Your task to perform on an android device: Open network settings Image 0: 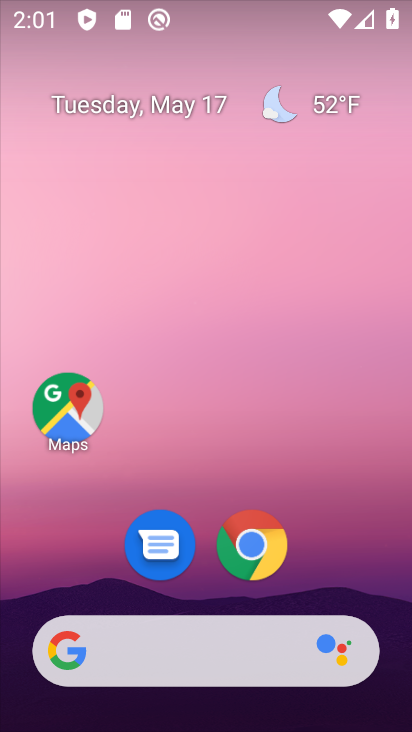
Step 0: drag from (341, 576) to (332, 156)
Your task to perform on an android device: Open network settings Image 1: 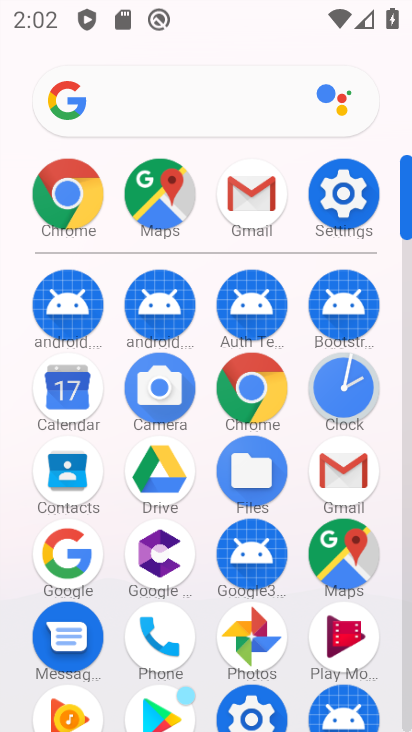
Step 1: drag from (281, 570) to (299, 405)
Your task to perform on an android device: Open network settings Image 2: 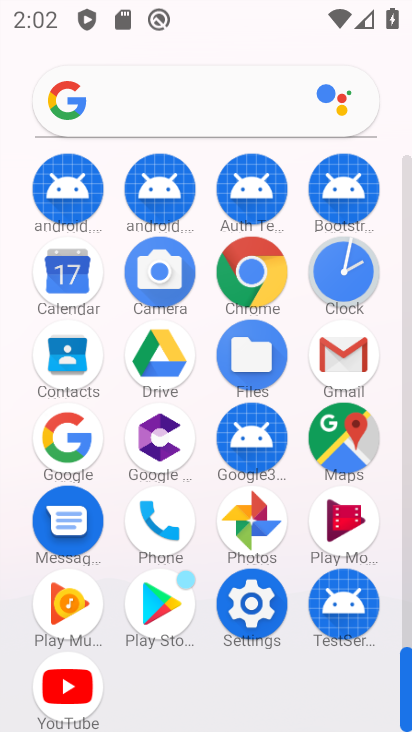
Step 2: click (262, 614)
Your task to perform on an android device: Open network settings Image 3: 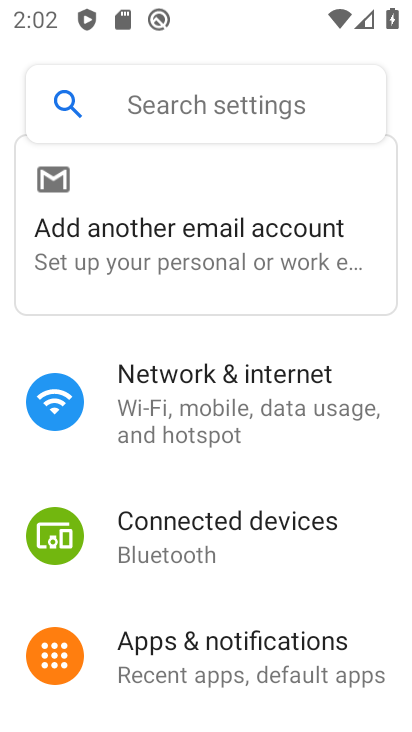
Step 3: drag from (304, 641) to (343, 462)
Your task to perform on an android device: Open network settings Image 4: 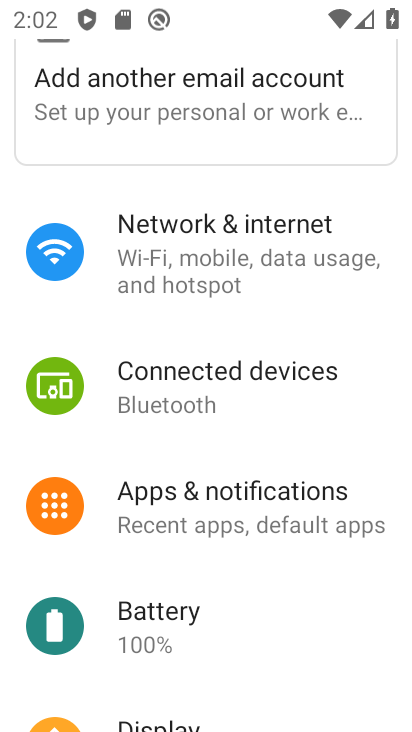
Step 4: drag from (313, 670) to (321, 500)
Your task to perform on an android device: Open network settings Image 5: 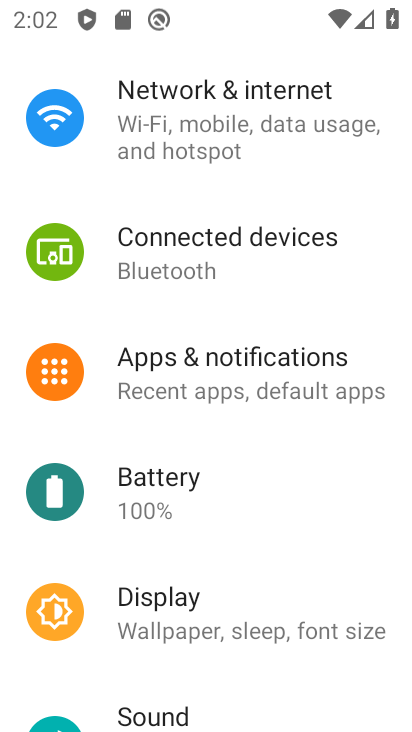
Step 5: drag from (297, 693) to (323, 516)
Your task to perform on an android device: Open network settings Image 6: 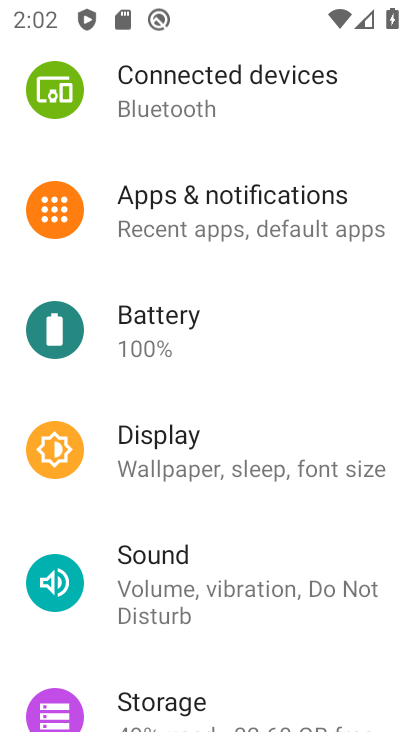
Step 6: drag from (306, 675) to (306, 513)
Your task to perform on an android device: Open network settings Image 7: 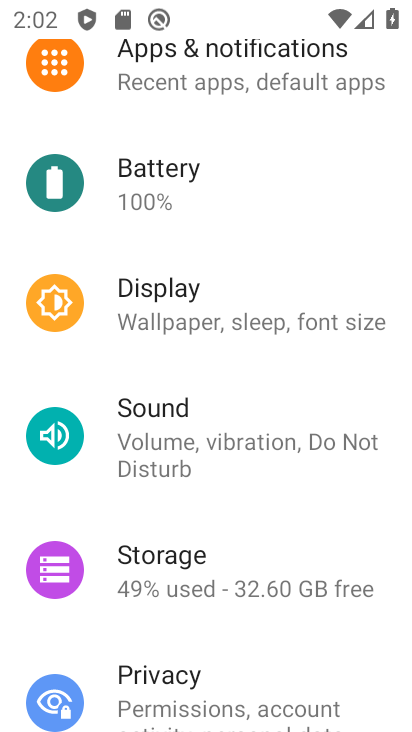
Step 7: drag from (297, 676) to (320, 530)
Your task to perform on an android device: Open network settings Image 8: 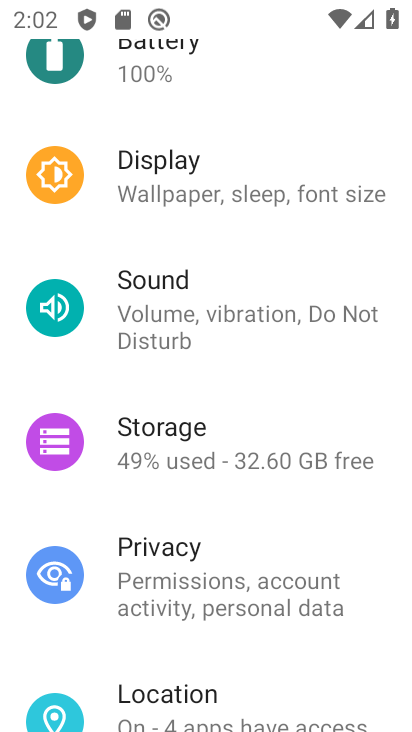
Step 8: drag from (298, 664) to (303, 537)
Your task to perform on an android device: Open network settings Image 9: 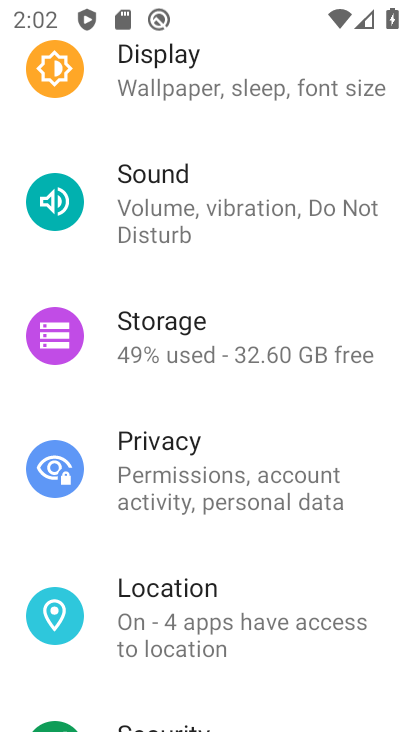
Step 9: drag from (290, 666) to (286, 567)
Your task to perform on an android device: Open network settings Image 10: 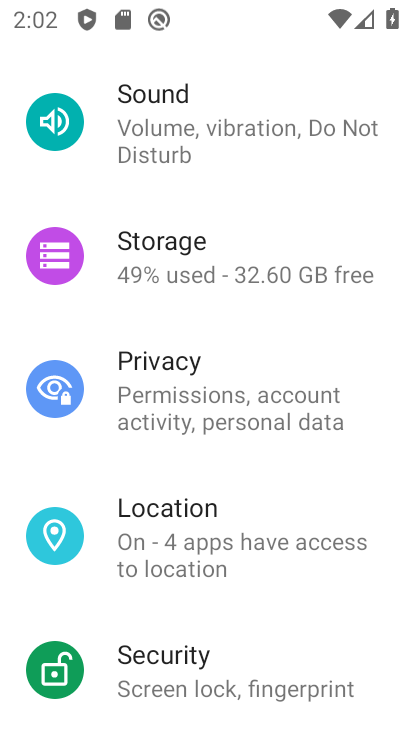
Step 10: drag from (291, 639) to (299, 561)
Your task to perform on an android device: Open network settings Image 11: 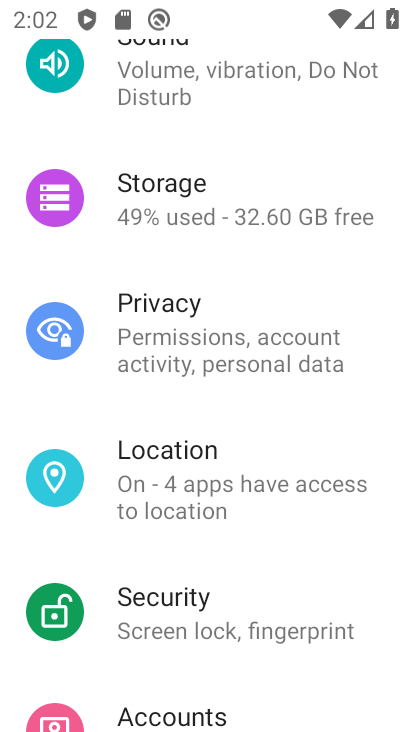
Step 11: drag from (320, 700) to (324, 557)
Your task to perform on an android device: Open network settings Image 12: 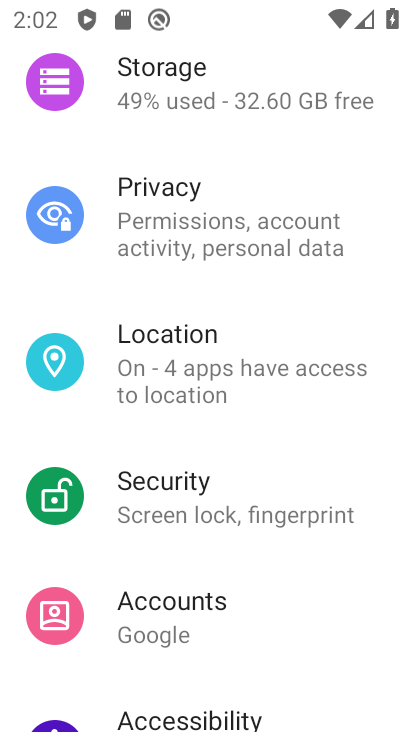
Step 12: drag from (326, 583) to (368, 409)
Your task to perform on an android device: Open network settings Image 13: 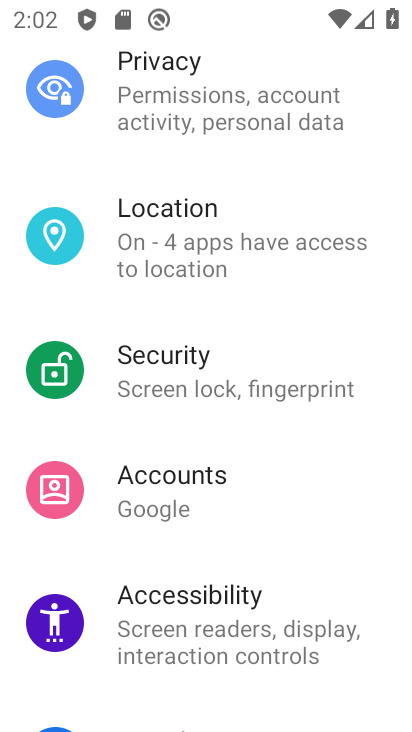
Step 13: drag from (373, 495) to (387, 372)
Your task to perform on an android device: Open network settings Image 14: 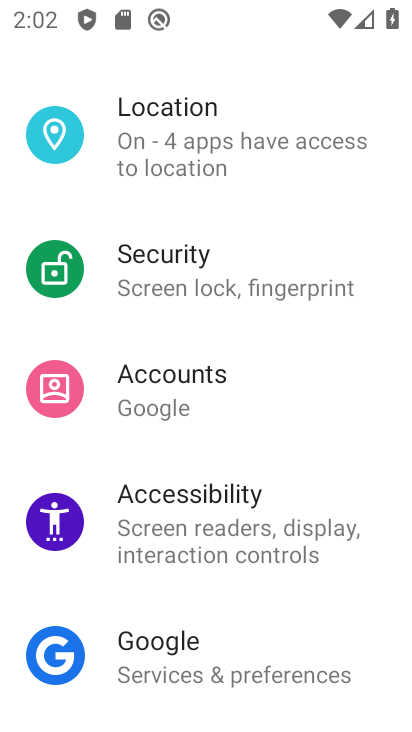
Step 14: drag from (352, 601) to (359, 448)
Your task to perform on an android device: Open network settings Image 15: 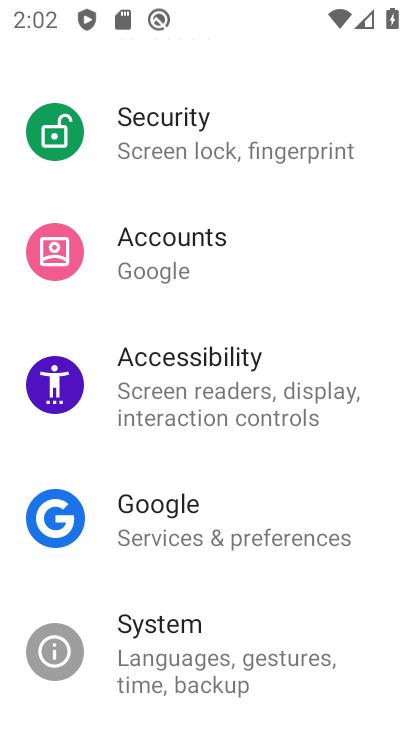
Step 15: drag from (336, 616) to (332, 447)
Your task to perform on an android device: Open network settings Image 16: 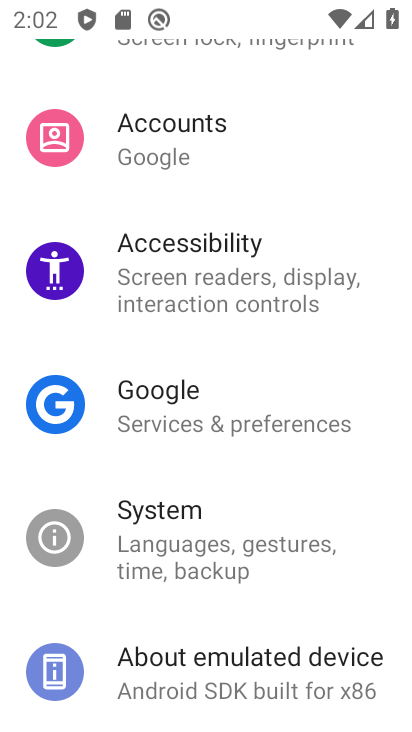
Step 16: drag from (315, 593) to (331, 462)
Your task to perform on an android device: Open network settings Image 17: 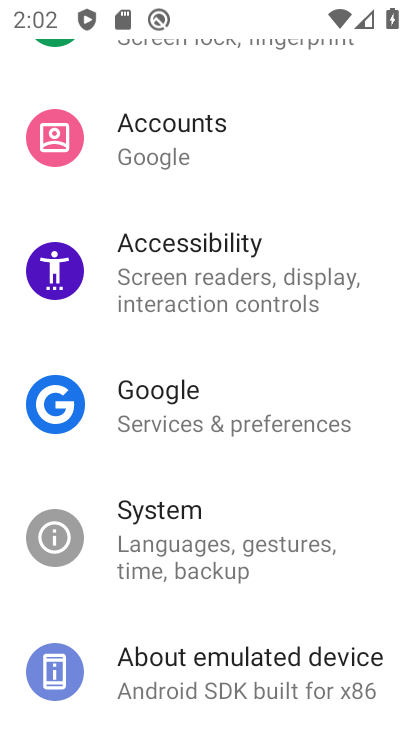
Step 17: drag from (369, 354) to (352, 488)
Your task to perform on an android device: Open network settings Image 18: 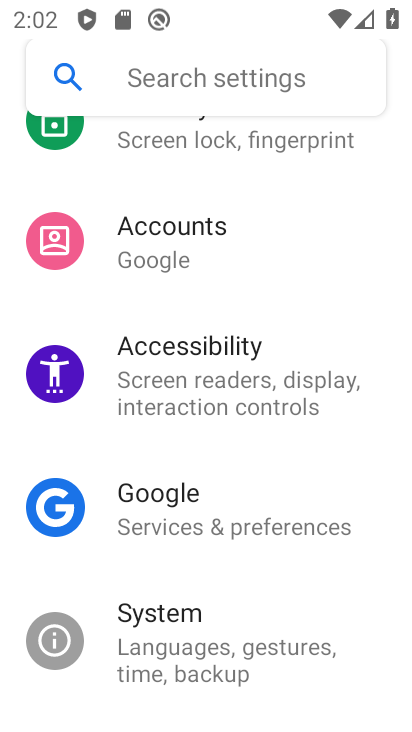
Step 18: drag from (358, 331) to (363, 473)
Your task to perform on an android device: Open network settings Image 19: 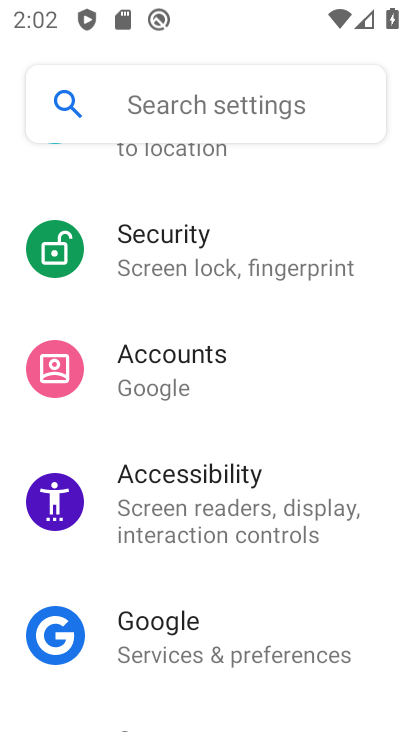
Step 19: drag from (349, 382) to (334, 502)
Your task to perform on an android device: Open network settings Image 20: 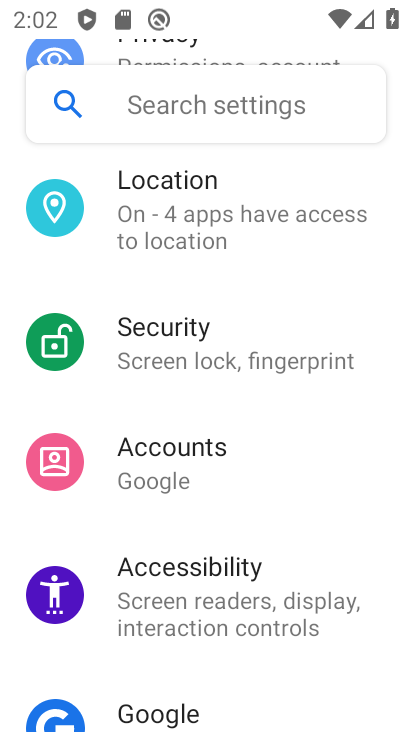
Step 20: drag from (330, 408) to (340, 486)
Your task to perform on an android device: Open network settings Image 21: 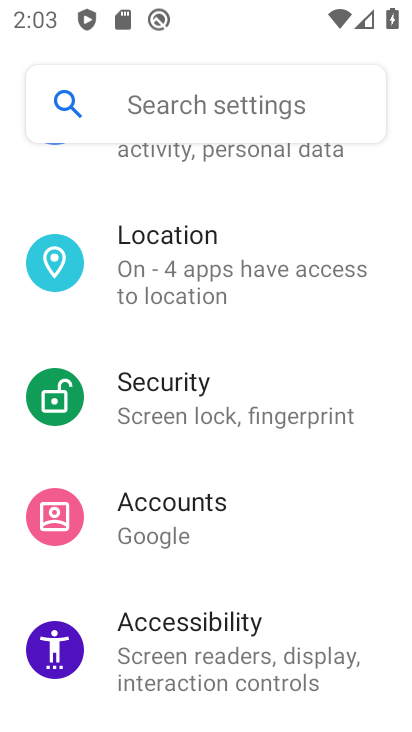
Step 21: drag from (338, 434) to (341, 520)
Your task to perform on an android device: Open network settings Image 22: 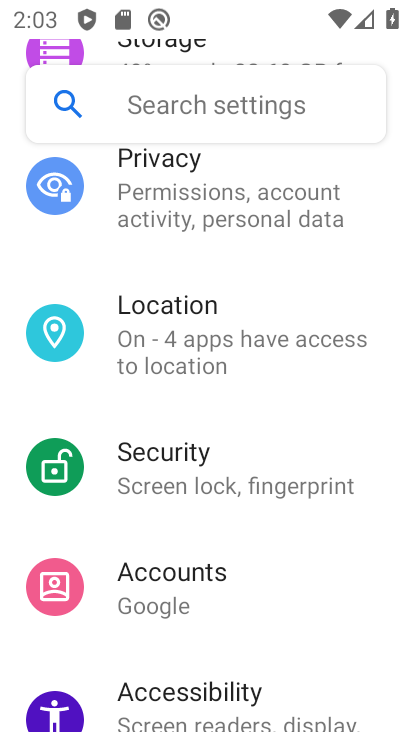
Step 22: drag from (328, 414) to (320, 515)
Your task to perform on an android device: Open network settings Image 23: 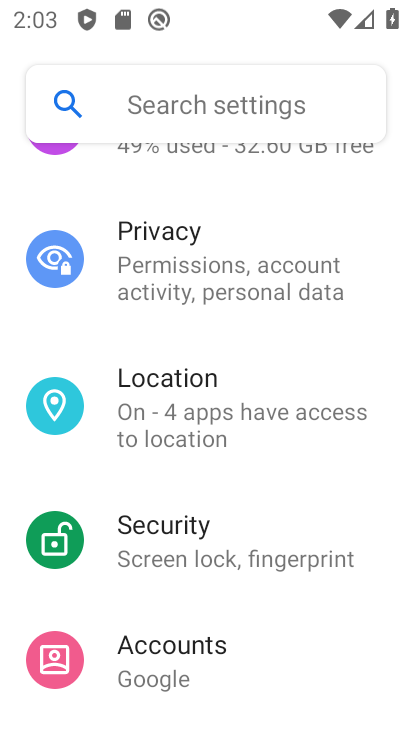
Step 23: drag from (322, 456) to (303, 522)
Your task to perform on an android device: Open network settings Image 24: 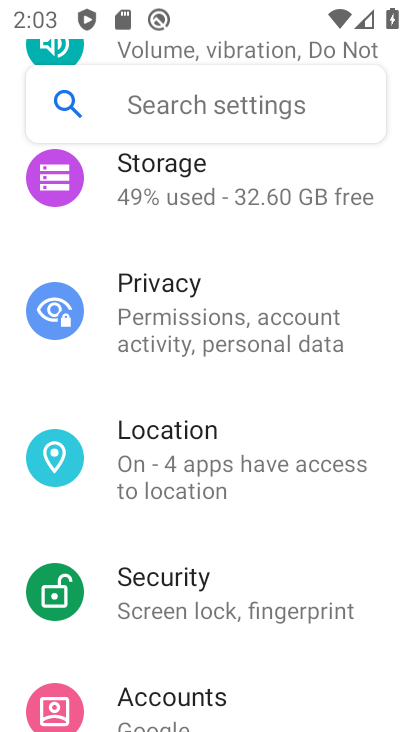
Step 24: drag from (305, 469) to (296, 516)
Your task to perform on an android device: Open network settings Image 25: 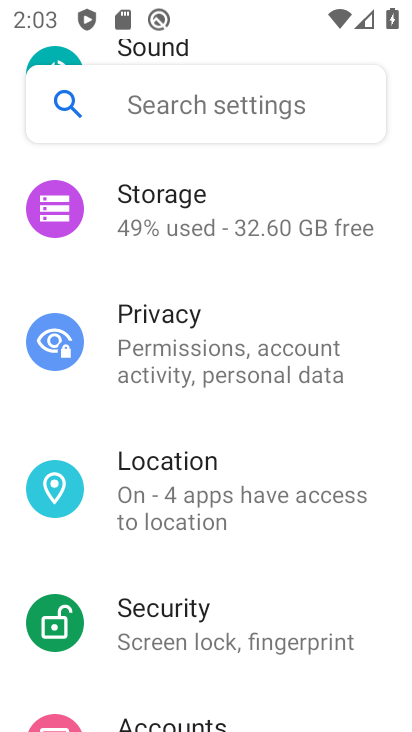
Step 25: drag from (292, 491) to (287, 535)
Your task to perform on an android device: Open network settings Image 26: 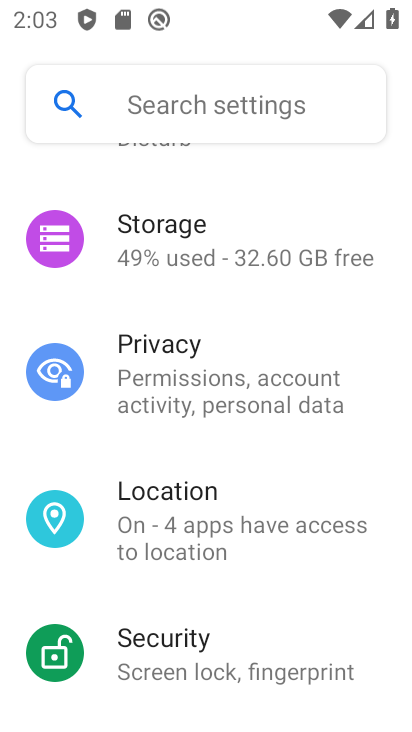
Step 26: drag from (354, 326) to (323, 512)
Your task to perform on an android device: Open network settings Image 27: 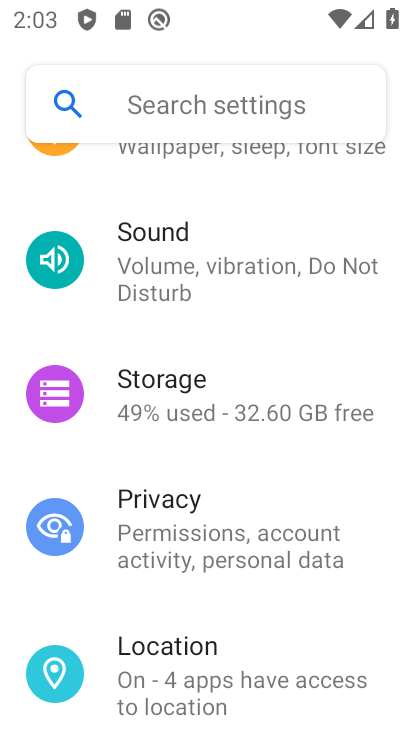
Step 27: drag from (368, 295) to (367, 477)
Your task to perform on an android device: Open network settings Image 28: 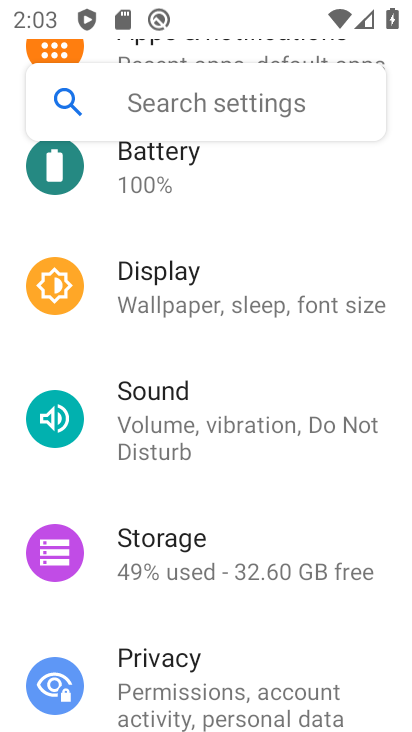
Step 28: drag from (383, 186) to (379, 411)
Your task to perform on an android device: Open network settings Image 29: 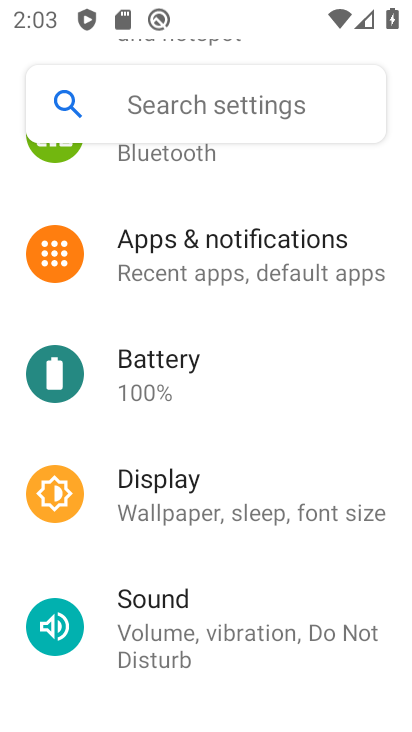
Step 29: drag from (333, 335) to (317, 486)
Your task to perform on an android device: Open network settings Image 30: 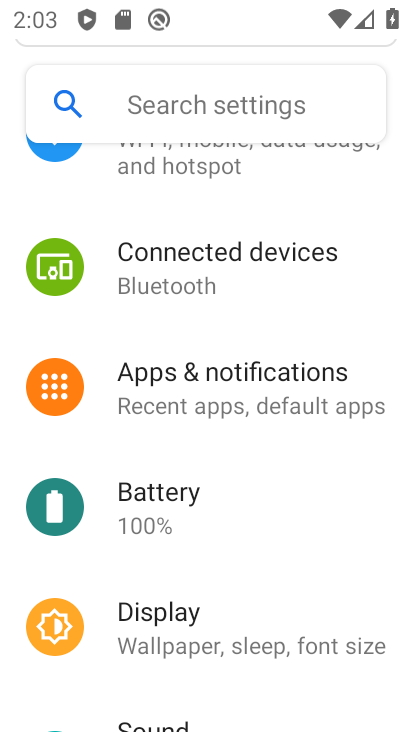
Step 30: drag from (370, 208) to (352, 434)
Your task to perform on an android device: Open network settings Image 31: 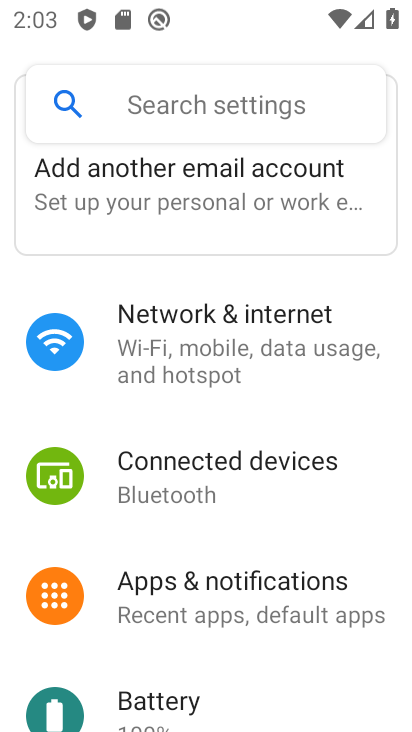
Step 31: click (310, 346)
Your task to perform on an android device: Open network settings Image 32: 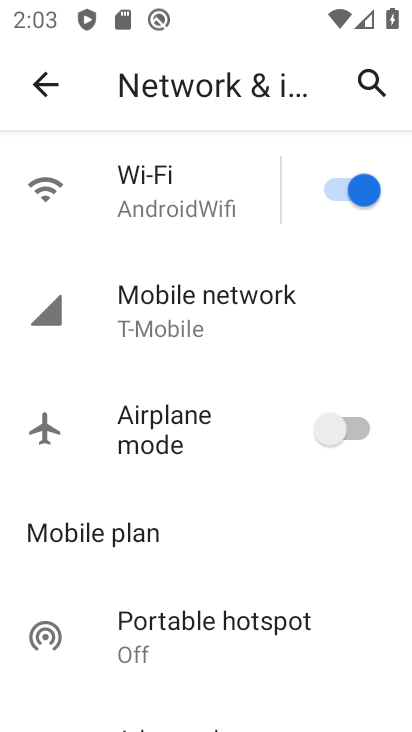
Step 32: task complete